Your task to perform on an android device: Go to internet settings Image 0: 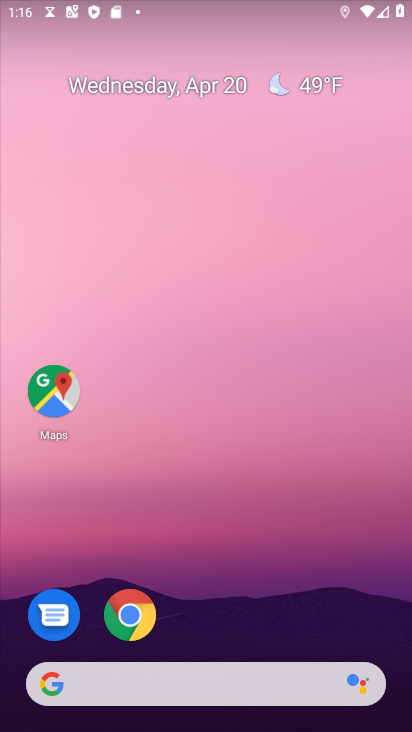
Step 0: drag from (133, 586) to (285, 281)
Your task to perform on an android device: Go to internet settings Image 1: 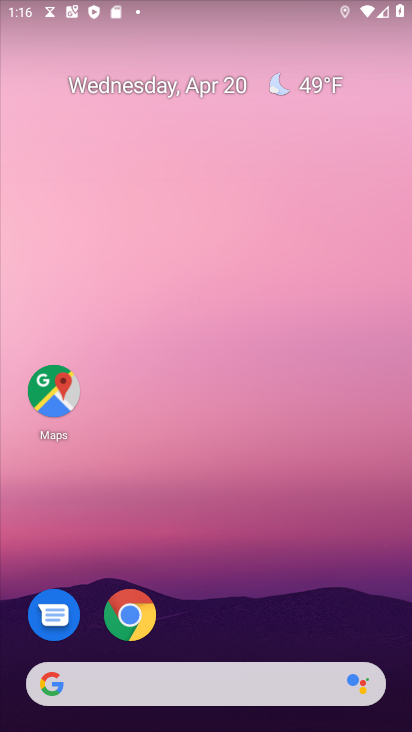
Step 1: drag from (171, 411) to (244, 216)
Your task to perform on an android device: Go to internet settings Image 2: 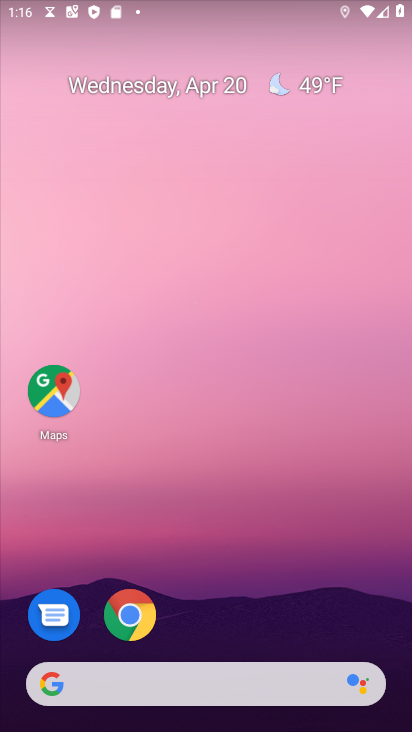
Step 2: drag from (33, 665) to (225, 281)
Your task to perform on an android device: Go to internet settings Image 3: 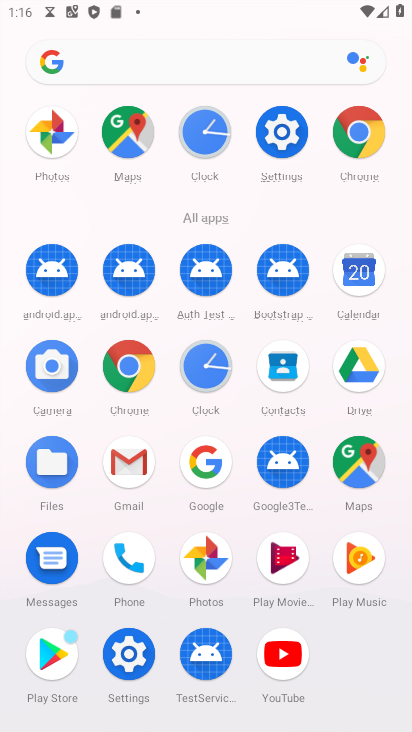
Step 3: click (275, 138)
Your task to perform on an android device: Go to internet settings Image 4: 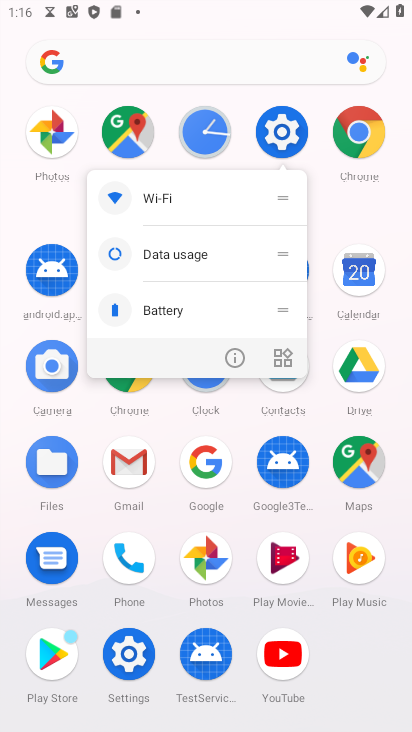
Step 4: click (293, 126)
Your task to perform on an android device: Go to internet settings Image 5: 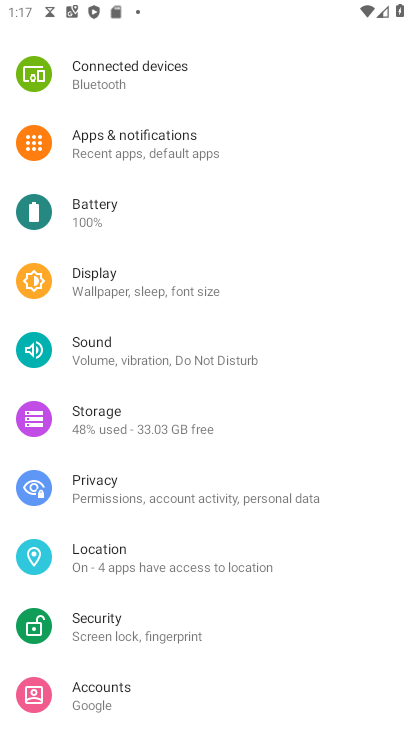
Step 5: drag from (130, 91) to (83, 339)
Your task to perform on an android device: Go to internet settings Image 6: 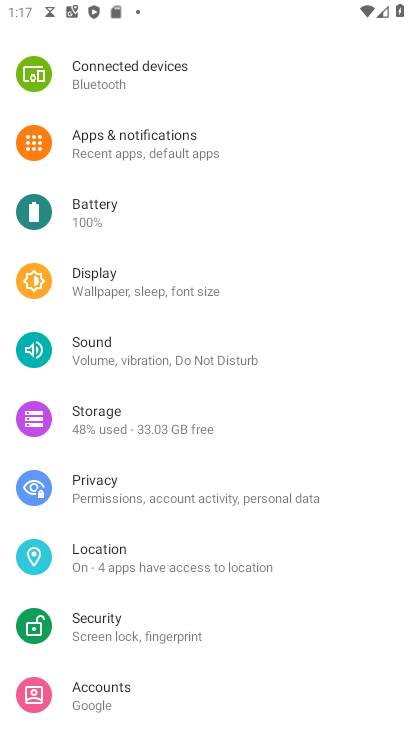
Step 6: drag from (83, 333) to (119, 154)
Your task to perform on an android device: Go to internet settings Image 7: 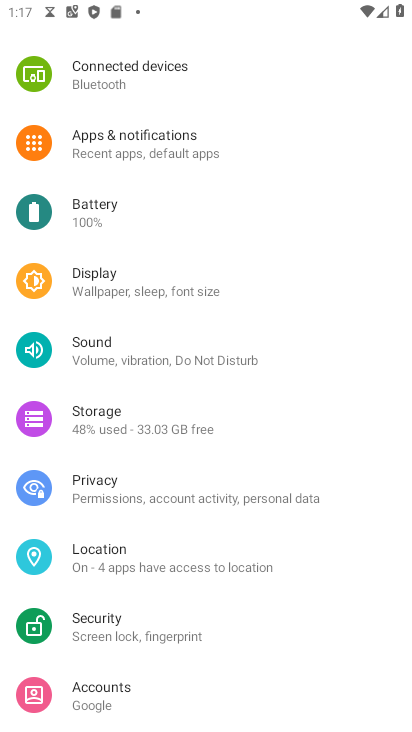
Step 7: drag from (166, 139) to (189, 589)
Your task to perform on an android device: Go to internet settings Image 8: 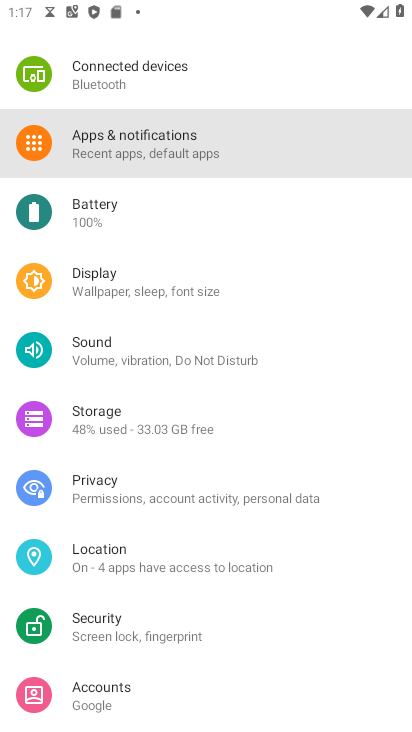
Step 8: drag from (184, 596) to (270, 329)
Your task to perform on an android device: Go to internet settings Image 9: 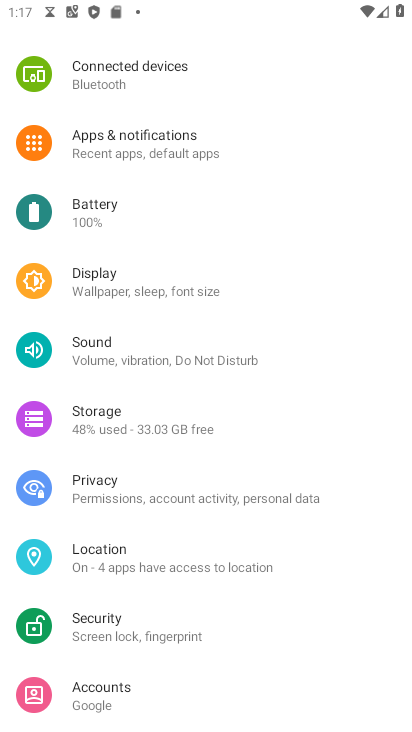
Step 9: drag from (190, 592) to (241, 351)
Your task to perform on an android device: Go to internet settings Image 10: 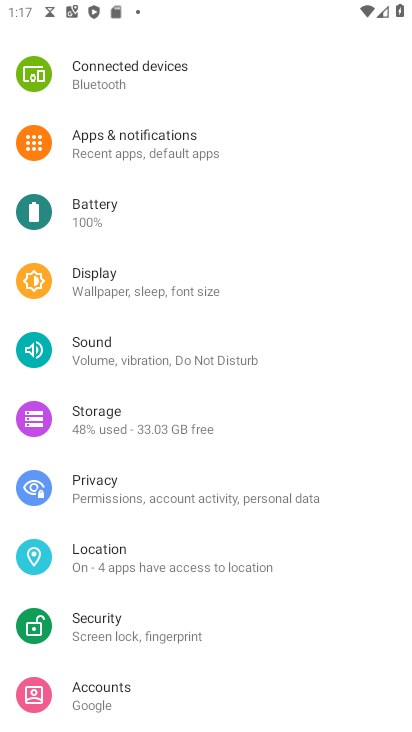
Step 10: drag from (153, 697) to (249, 342)
Your task to perform on an android device: Go to internet settings Image 11: 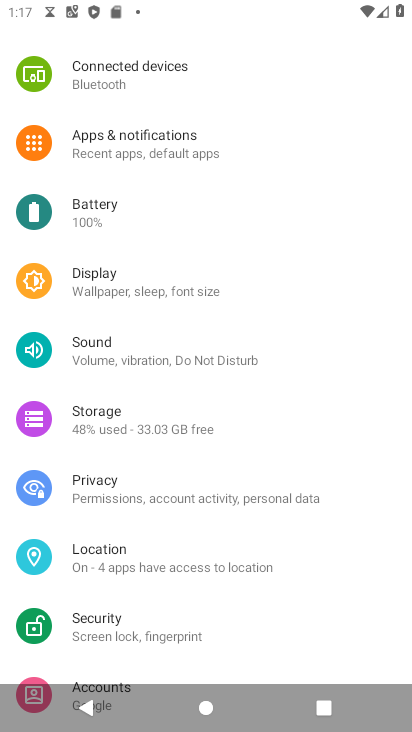
Step 11: drag from (211, 491) to (284, 188)
Your task to perform on an android device: Go to internet settings Image 12: 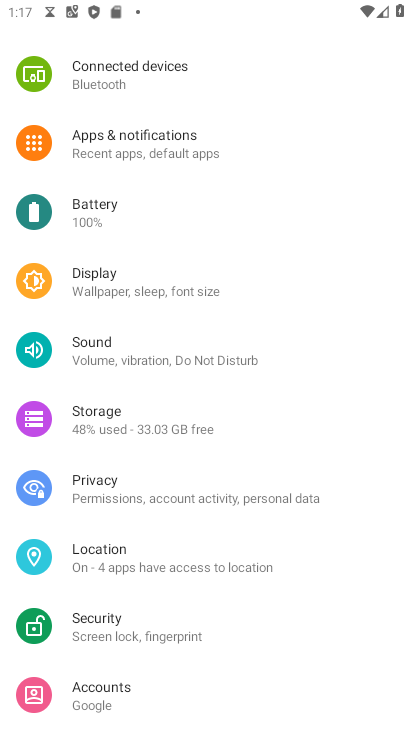
Step 12: drag from (151, 625) to (292, 317)
Your task to perform on an android device: Go to internet settings Image 13: 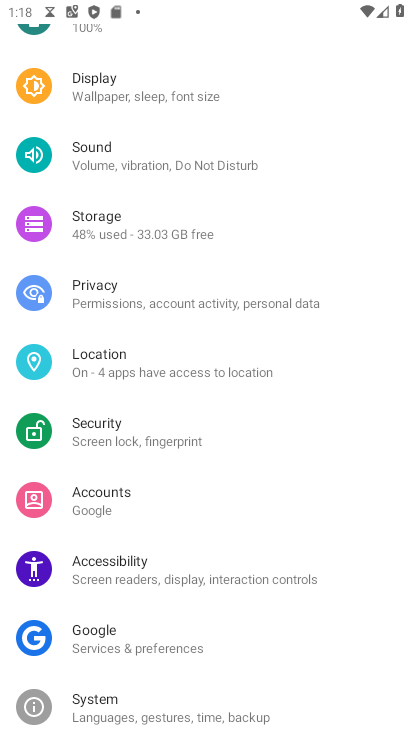
Step 13: drag from (142, 133) to (173, 481)
Your task to perform on an android device: Go to internet settings Image 14: 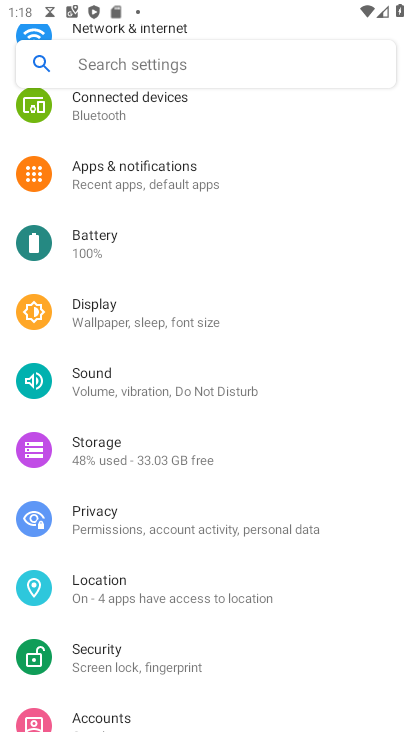
Step 14: drag from (193, 56) to (214, 523)
Your task to perform on an android device: Go to internet settings Image 15: 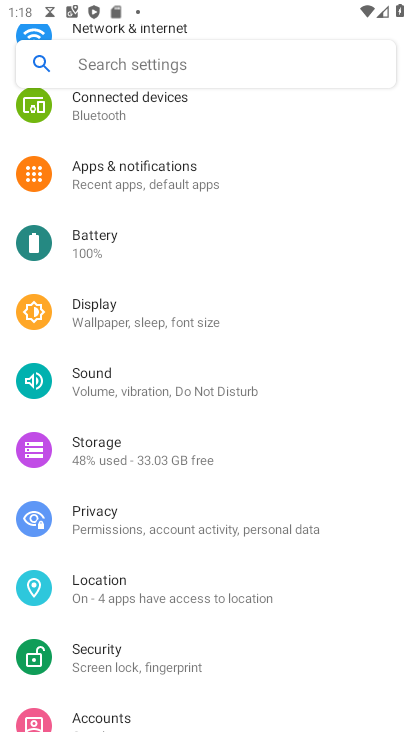
Step 15: drag from (118, 221) to (151, 670)
Your task to perform on an android device: Go to internet settings Image 16: 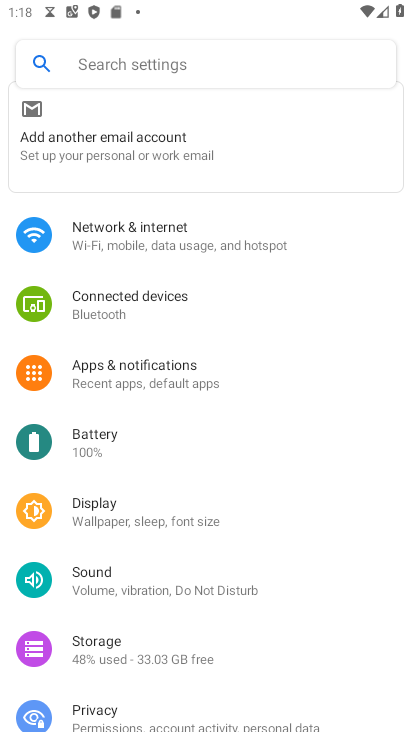
Step 16: click (163, 255)
Your task to perform on an android device: Go to internet settings Image 17: 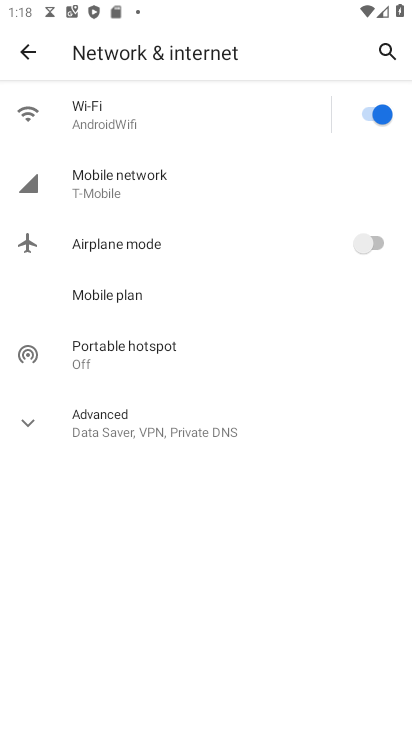
Step 17: click (124, 192)
Your task to perform on an android device: Go to internet settings Image 18: 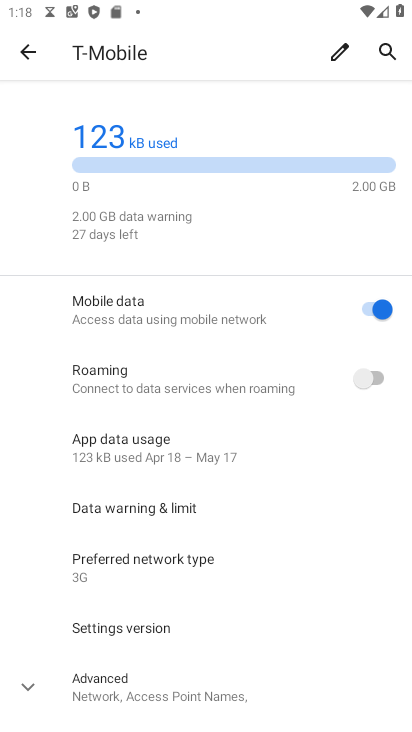
Step 18: task complete